Your task to perform on an android device: turn on airplane mode Image 0: 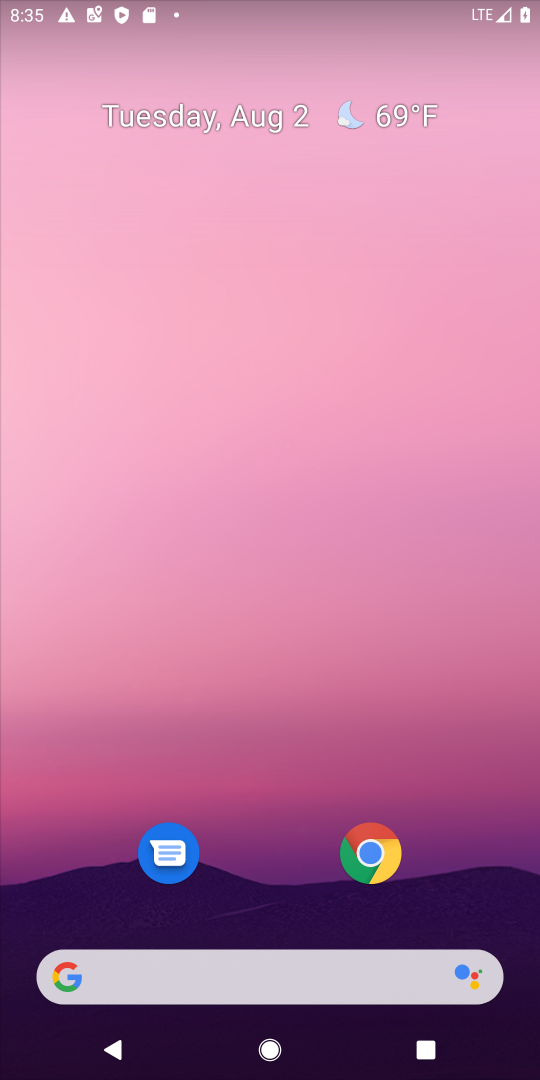
Step 0: drag from (247, 893) to (177, 54)
Your task to perform on an android device: turn on airplane mode Image 1: 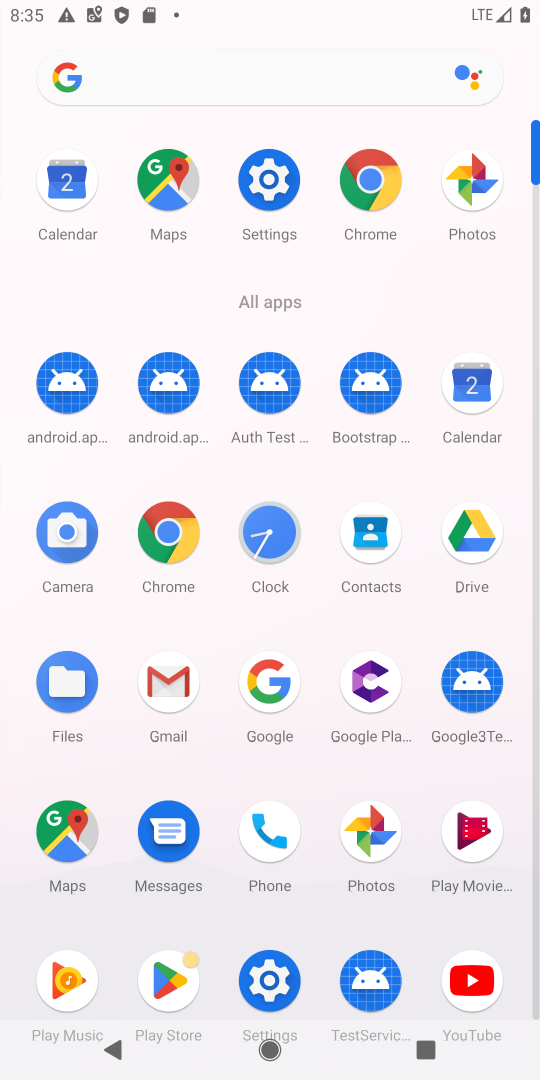
Step 1: click (272, 205)
Your task to perform on an android device: turn on airplane mode Image 2: 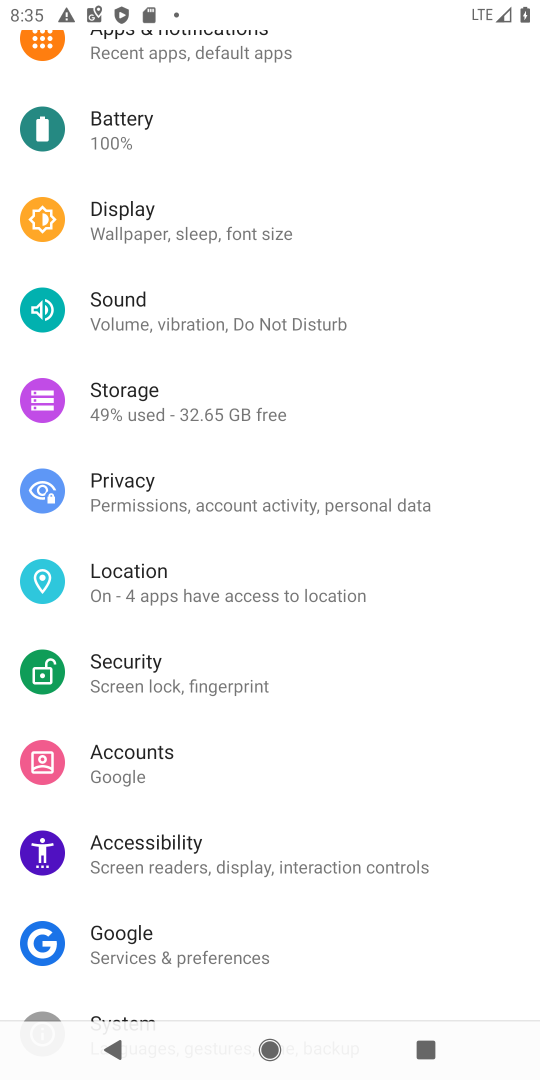
Step 2: drag from (297, 121) to (295, 781)
Your task to perform on an android device: turn on airplane mode Image 3: 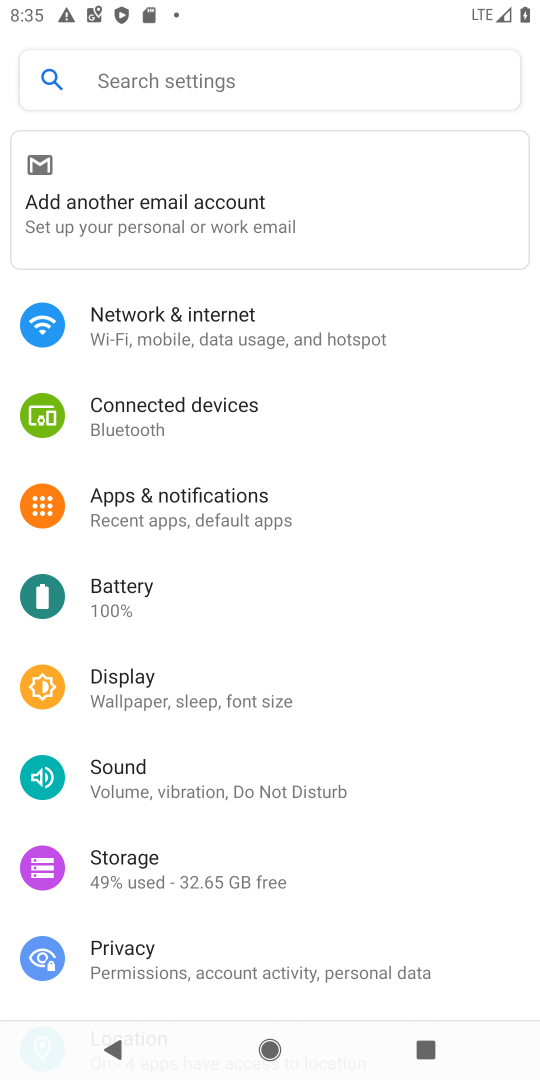
Step 3: click (289, 316)
Your task to perform on an android device: turn on airplane mode Image 4: 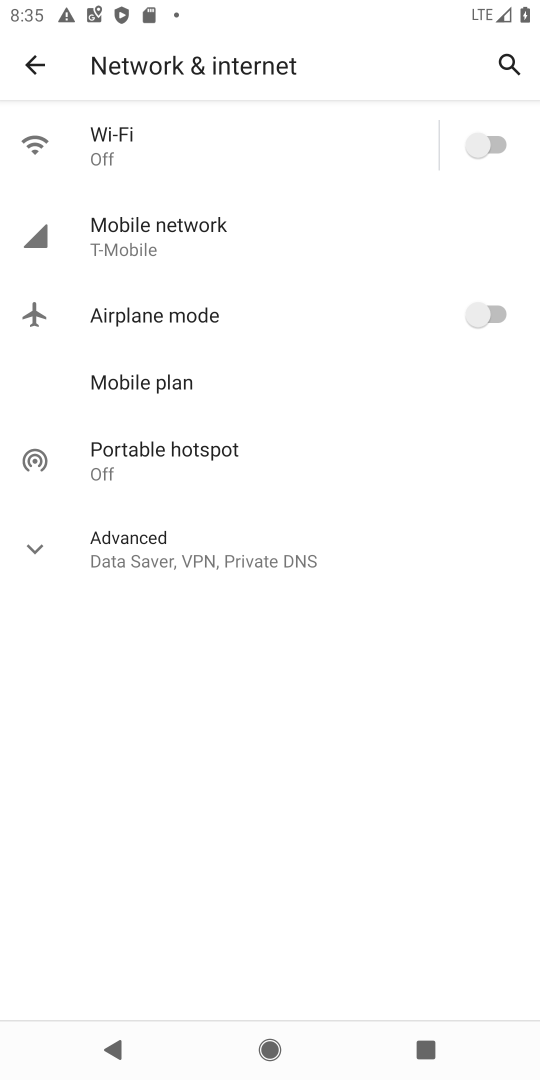
Step 4: click (498, 303)
Your task to perform on an android device: turn on airplane mode Image 5: 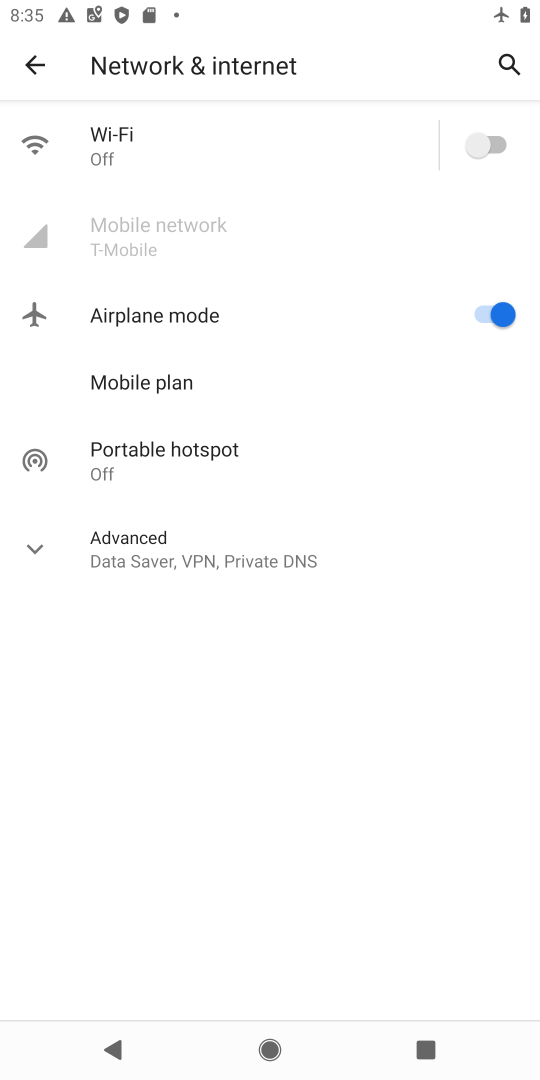
Step 5: task complete